Your task to perform on an android device: Open Yahoo.com Image 0: 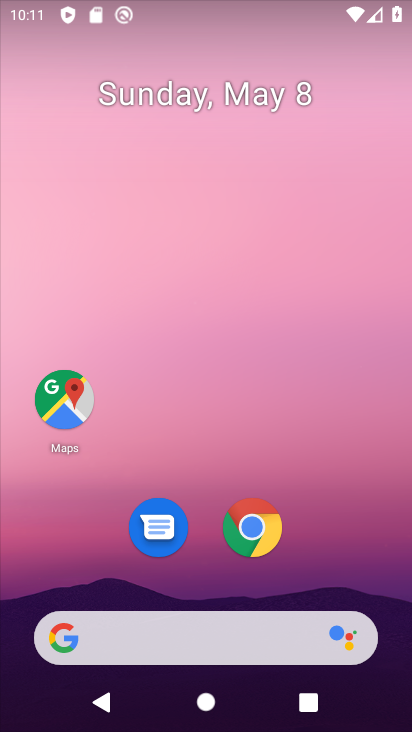
Step 0: click (250, 545)
Your task to perform on an android device: Open Yahoo.com Image 1: 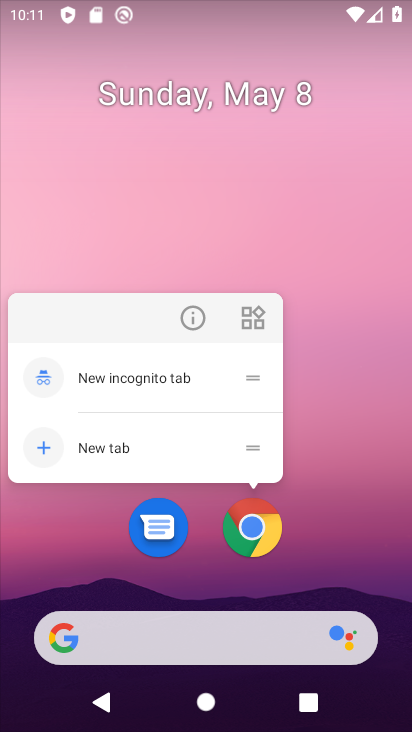
Step 1: click (263, 530)
Your task to perform on an android device: Open Yahoo.com Image 2: 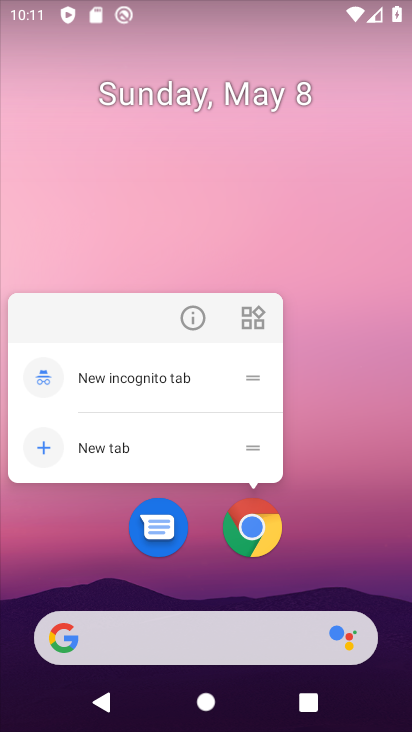
Step 2: click (263, 537)
Your task to perform on an android device: Open Yahoo.com Image 3: 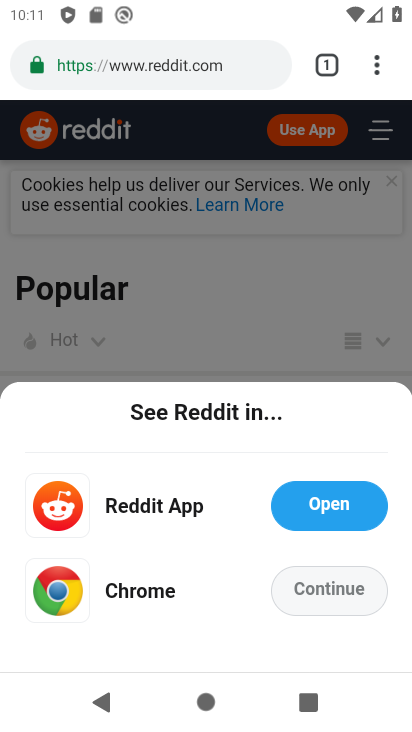
Step 3: click (206, 59)
Your task to perform on an android device: Open Yahoo.com Image 4: 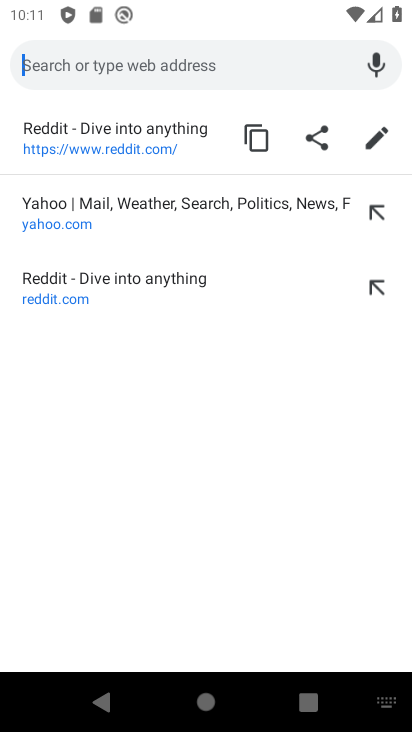
Step 4: type "Yahoo.com"
Your task to perform on an android device: Open Yahoo.com Image 5: 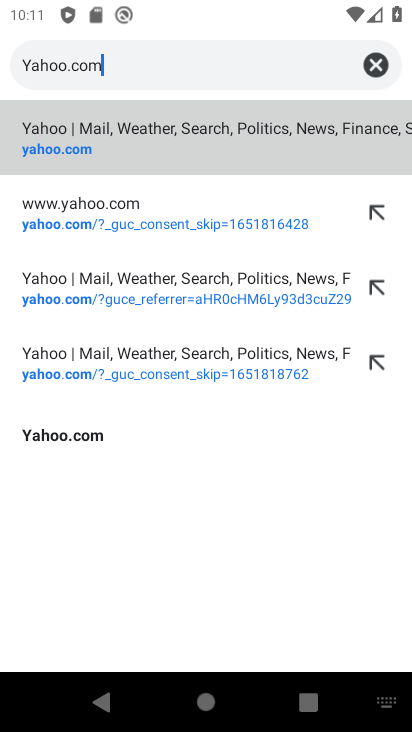
Step 5: click (87, 136)
Your task to perform on an android device: Open Yahoo.com Image 6: 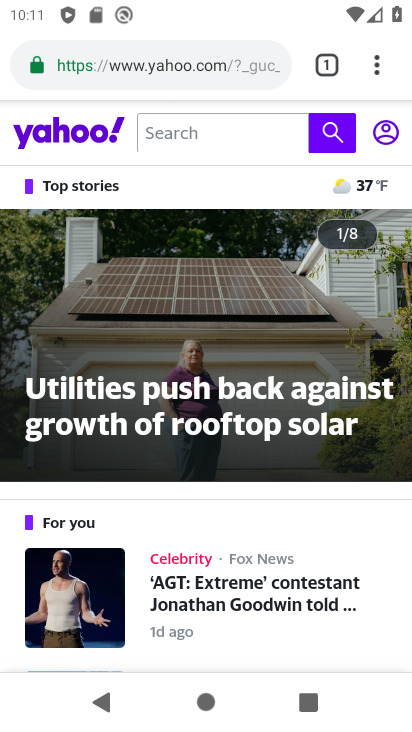
Step 6: task complete